Your task to perform on an android device: Open Google Chrome and click the shortcut for Amazon.com Image 0: 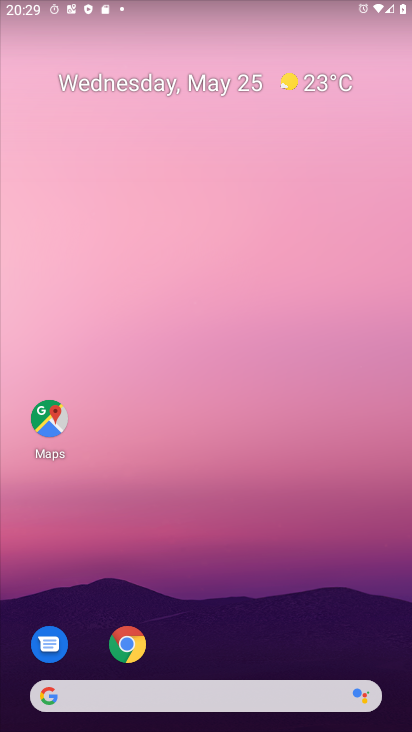
Step 0: drag from (225, 631) to (205, 220)
Your task to perform on an android device: Open Google Chrome and click the shortcut for Amazon.com Image 1: 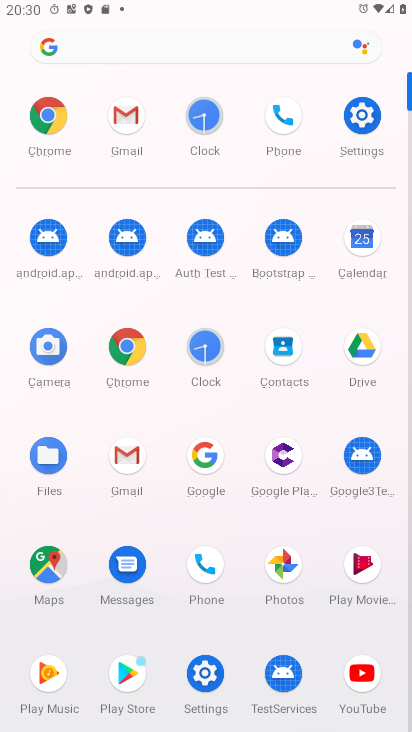
Step 1: click (40, 112)
Your task to perform on an android device: Open Google Chrome and click the shortcut for Amazon.com Image 2: 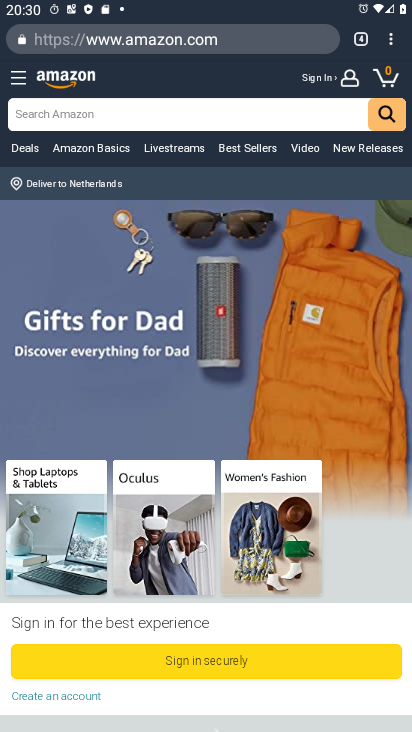
Step 2: click (389, 40)
Your task to perform on an android device: Open Google Chrome and click the shortcut for Amazon.com Image 3: 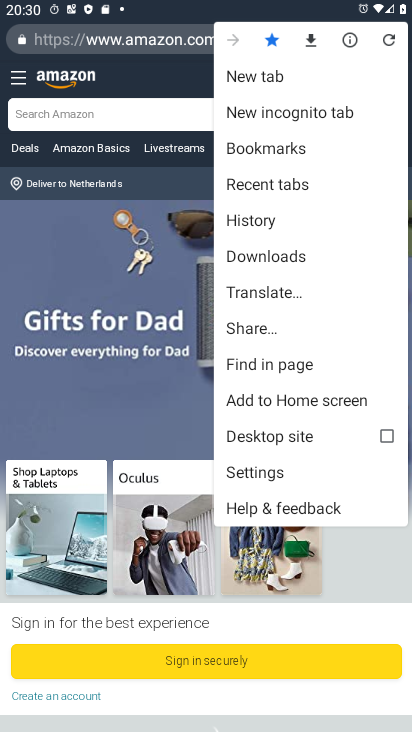
Step 3: click (269, 400)
Your task to perform on an android device: Open Google Chrome and click the shortcut for Amazon.com Image 4: 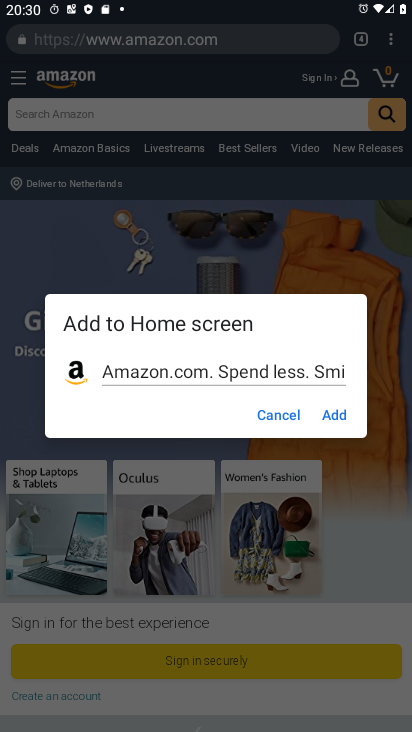
Step 4: click (331, 413)
Your task to perform on an android device: Open Google Chrome and click the shortcut for Amazon.com Image 5: 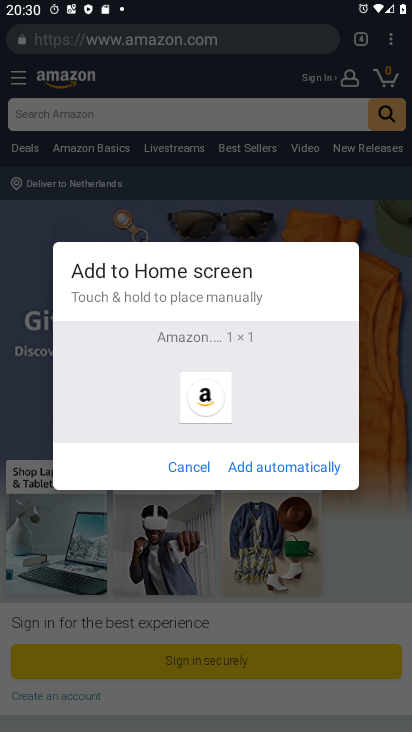
Step 5: click (300, 461)
Your task to perform on an android device: Open Google Chrome and click the shortcut for Amazon.com Image 6: 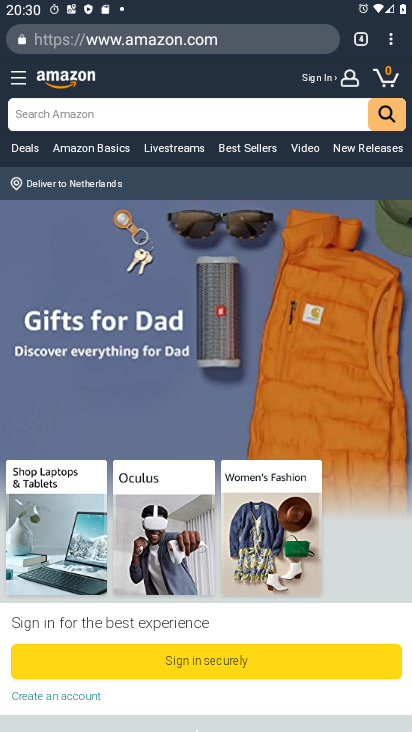
Step 6: task complete